Your task to perform on an android device: Search for vegetarian restaurants on Maps Image 0: 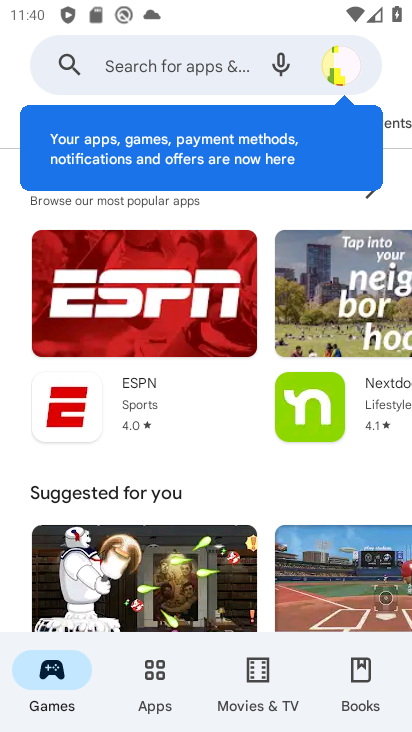
Step 0: press home button
Your task to perform on an android device: Search for vegetarian restaurants on Maps Image 1: 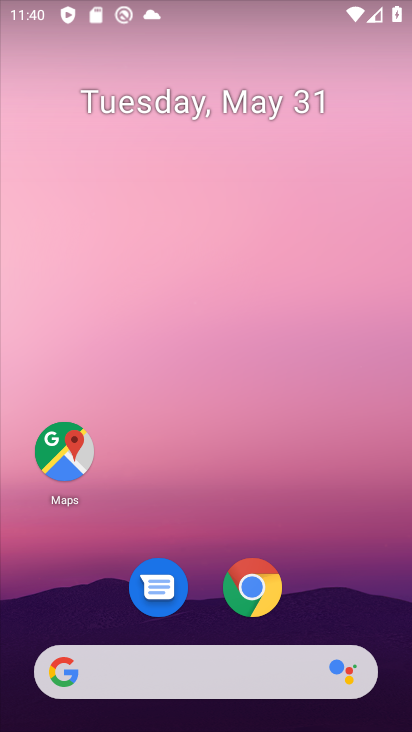
Step 1: click (54, 479)
Your task to perform on an android device: Search for vegetarian restaurants on Maps Image 2: 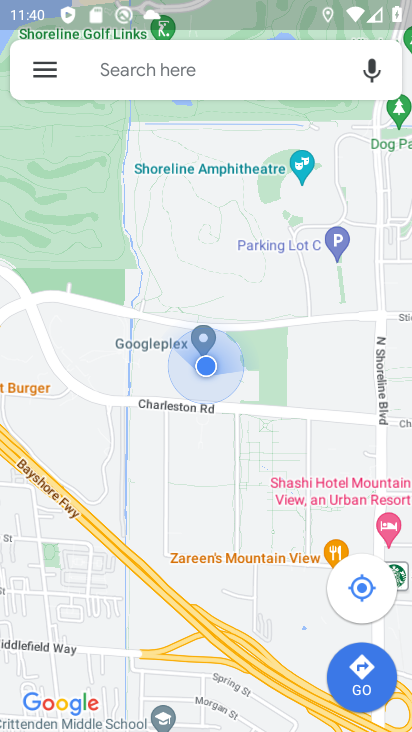
Step 2: click (224, 73)
Your task to perform on an android device: Search for vegetarian restaurants on Maps Image 3: 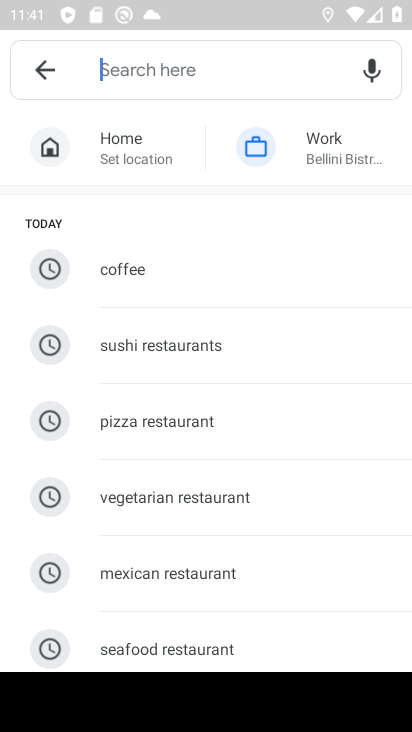
Step 3: click (175, 505)
Your task to perform on an android device: Search for vegetarian restaurants on Maps Image 4: 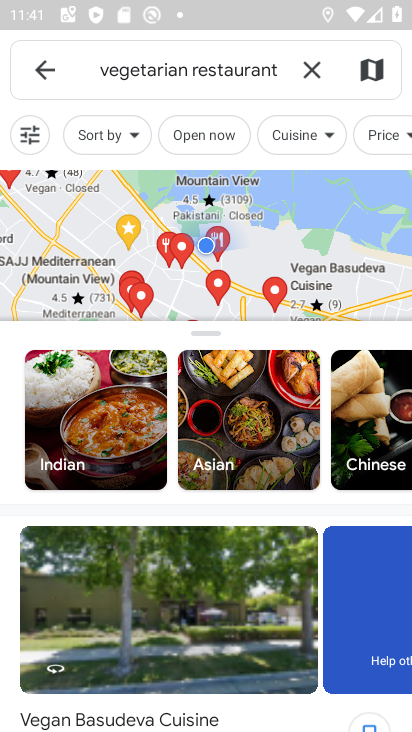
Step 4: click (245, 626)
Your task to perform on an android device: Search for vegetarian restaurants on Maps Image 5: 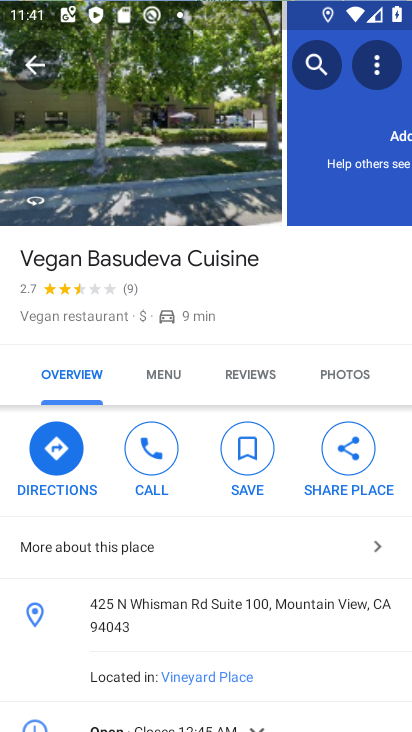
Step 5: task complete